Your task to perform on an android device: Show me recent news Image 0: 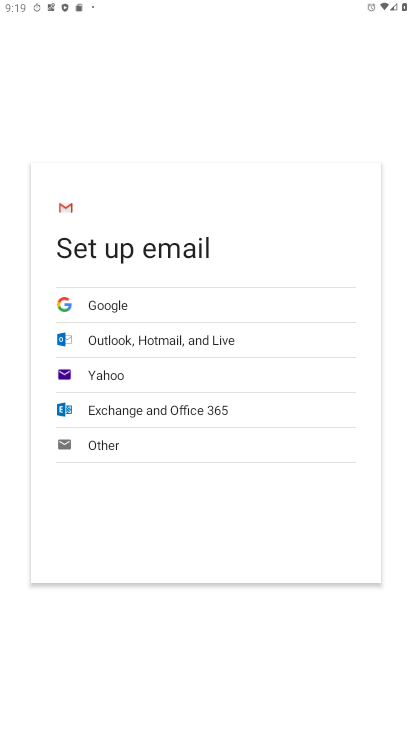
Step 0: drag from (211, 650) to (337, 33)
Your task to perform on an android device: Show me recent news Image 1: 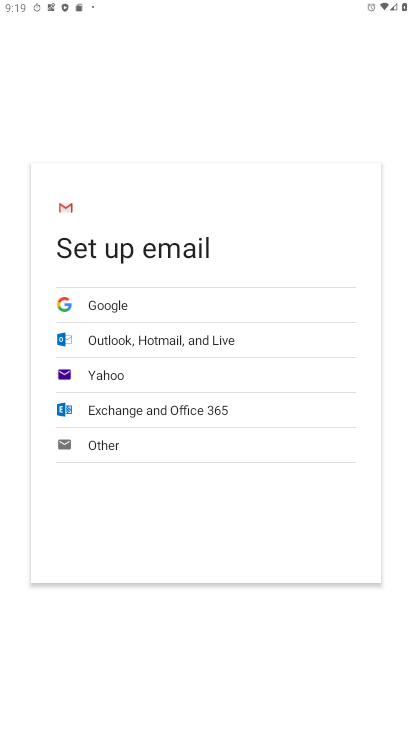
Step 1: press home button
Your task to perform on an android device: Show me recent news Image 2: 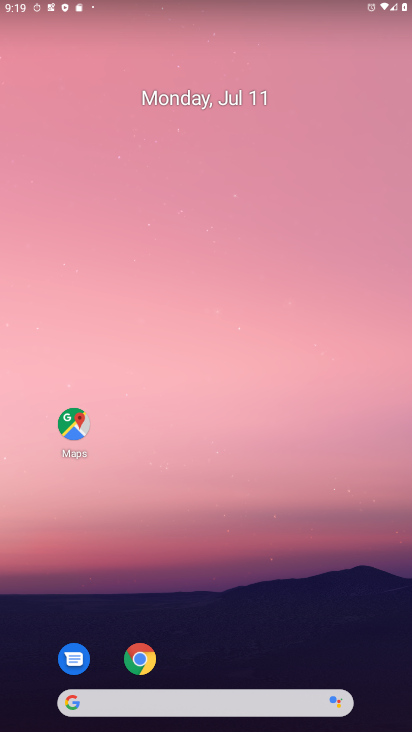
Step 2: drag from (279, 591) to (390, 5)
Your task to perform on an android device: Show me recent news Image 3: 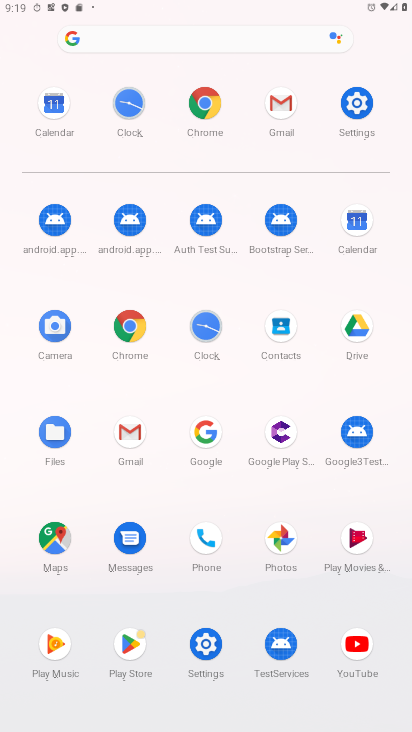
Step 3: click (128, 49)
Your task to perform on an android device: Show me recent news Image 4: 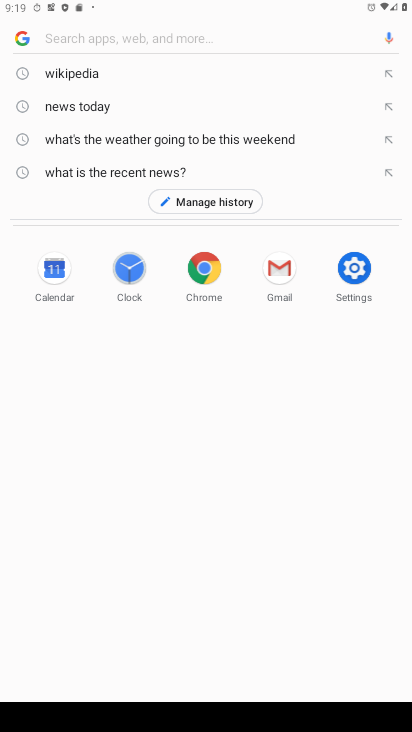
Step 4: click (134, 173)
Your task to perform on an android device: Show me recent news Image 5: 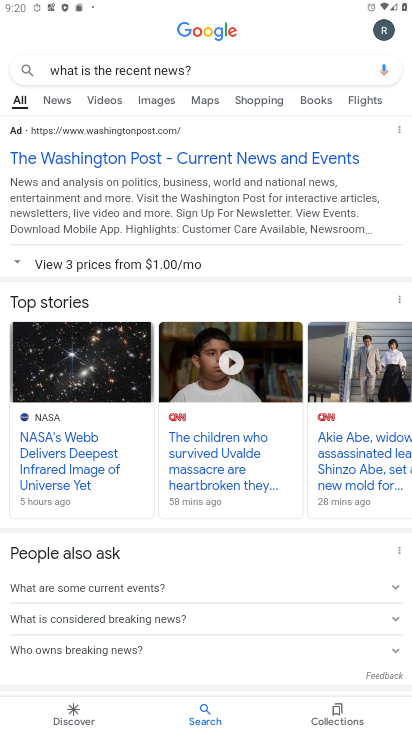
Step 5: click (112, 151)
Your task to perform on an android device: Show me recent news Image 6: 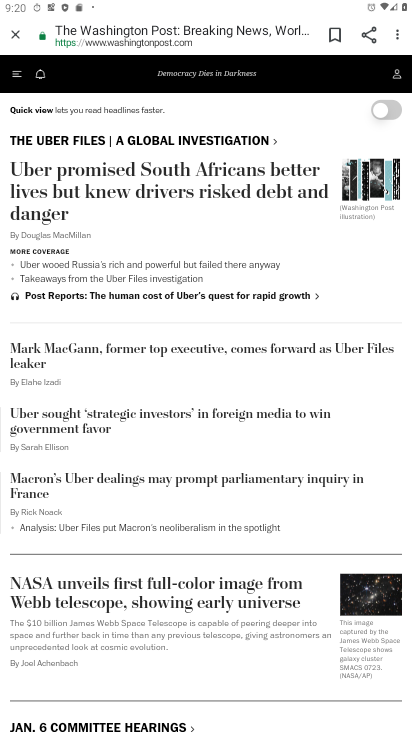
Step 6: task complete